Your task to perform on an android device: remove spam from my inbox in the gmail app Image 0: 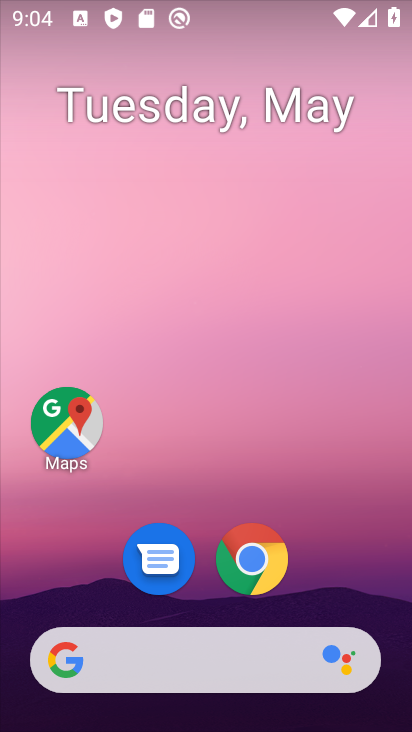
Step 0: drag from (288, 639) to (291, 601)
Your task to perform on an android device: remove spam from my inbox in the gmail app Image 1: 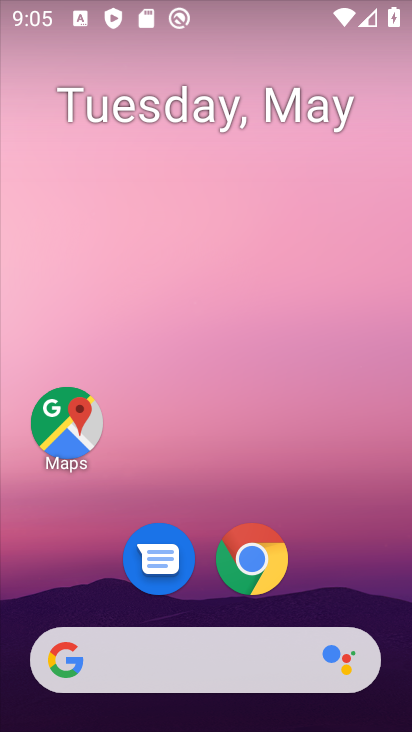
Step 1: drag from (208, 677) to (225, 461)
Your task to perform on an android device: remove spam from my inbox in the gmail app Image 2: 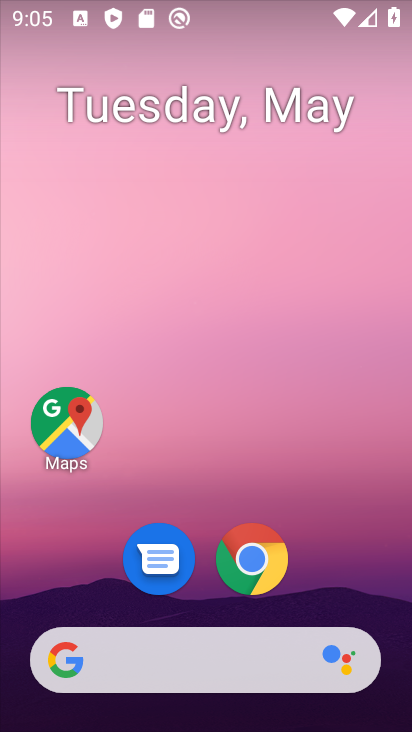
Step 2: drag from (158, 651) to (226, 375)
Your task to perform on an android device: remove spam from my inbox in the gmail app Image 3: 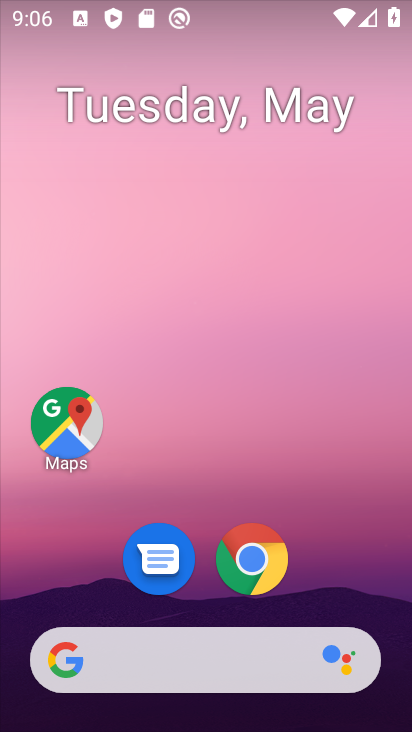
Step 3: drag from (172, 622) to (190, 247)
Your task to perform on an android device: remove spam from my inbox in the gmail app Image 4: 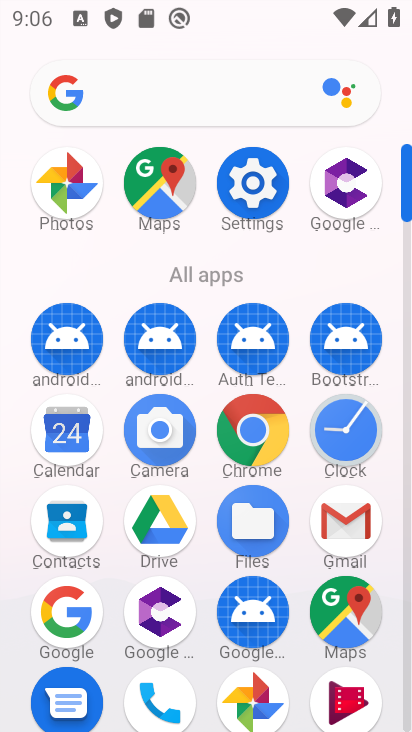
Step 4: click (338, 540)
Your task to perform on an android device: remove spam from my inbox in the gmail app Image 5: 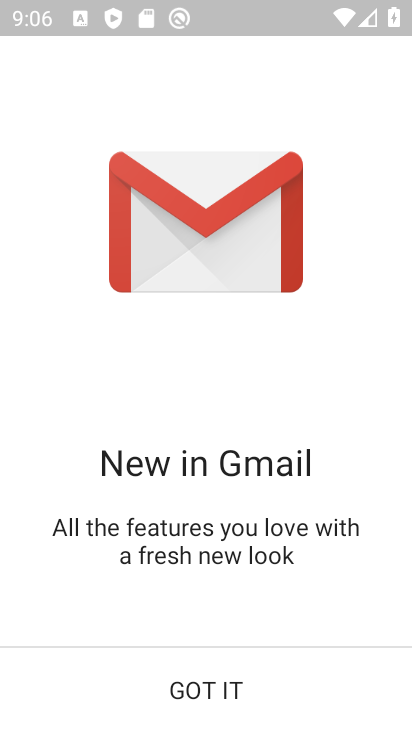
Step 5: click (234, 662)
Your task to perform on an android device: remove spam from my inbox in the gmail app Image 6: 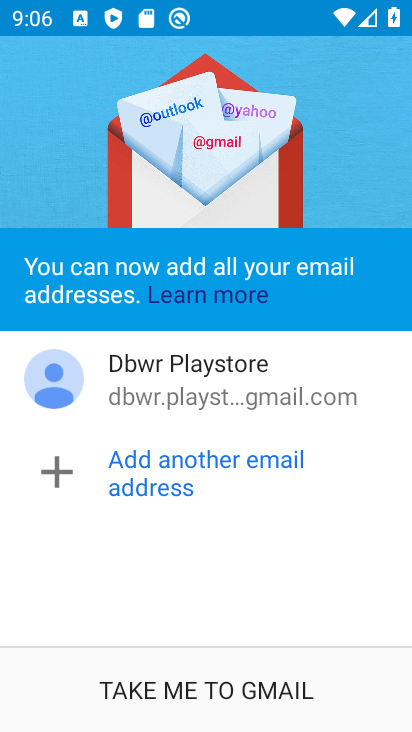
Step 6: click (259, 689)
Your task to perform on an android device: remove spam from my inbox in the gmail app Image 7: 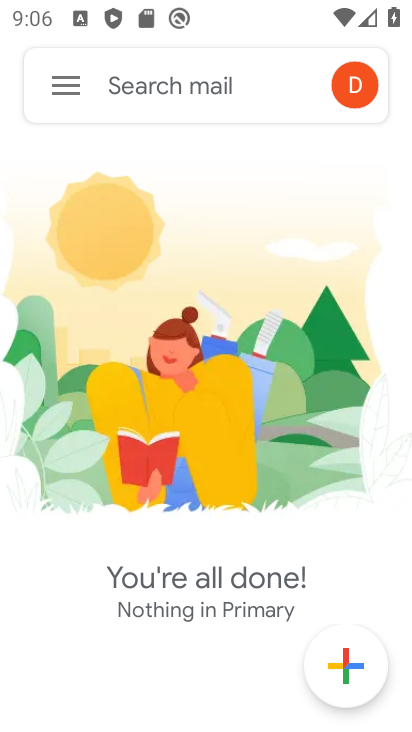
Step 7: click (42, 74)
Your task to perform on an android device: remove spam from my inbox in the gmail app Image 8: 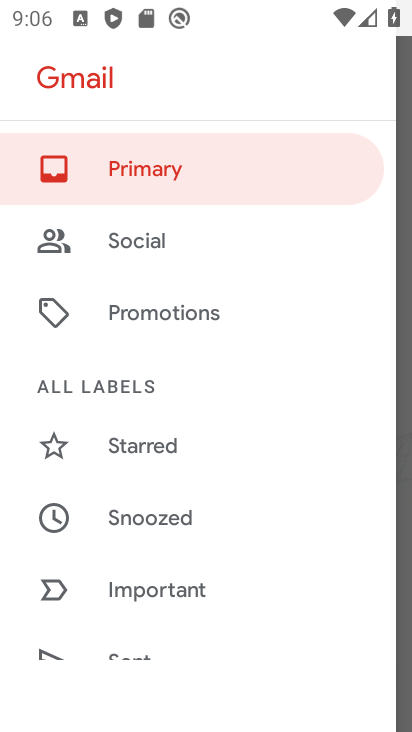
Step 8: drag from (156, 552) to (129, 221)
Your task to perform on an android device: remove spam from my inbox in the gmail app Image 9: 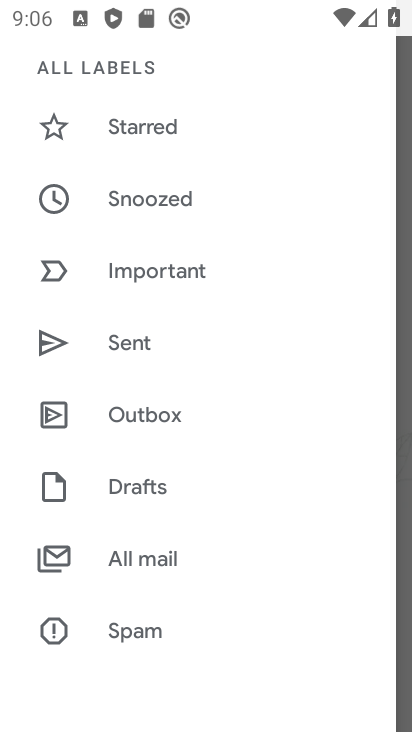
Step 9: drag from (109, 275) to (129, 606)
Your task to perform on an android device: remove spam from my inbox in the gmail app Image 10: 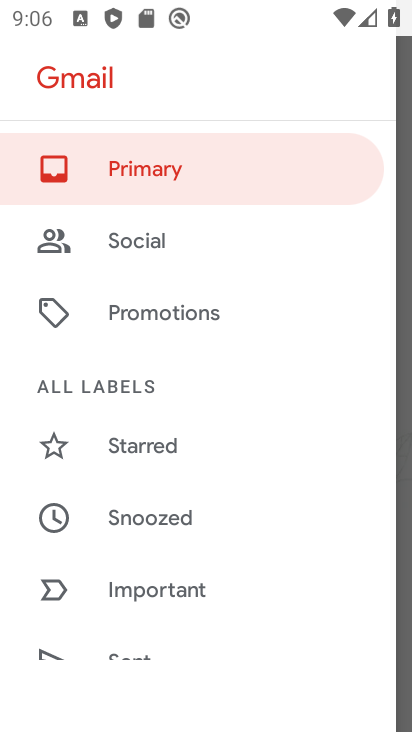
Step 10: drag from (144, 503) to (112, 130)
Your task to perform on an android device: remove spam from my inbox in the gmail app Image 11: 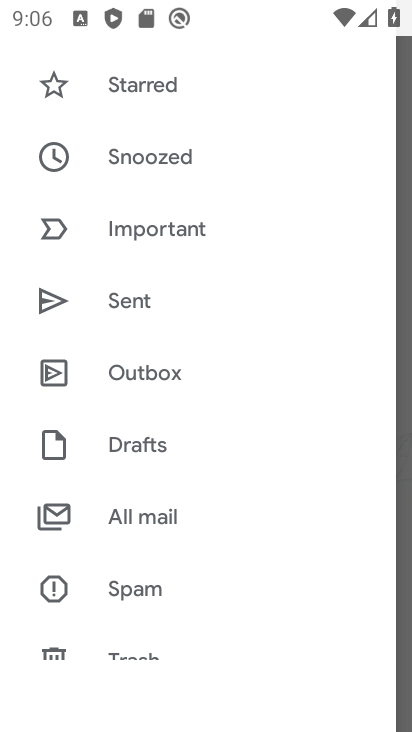
Step 11: click (140, 536)
Your task to perform on an android device: remove spam from my inbox in the gmail app Image 12: 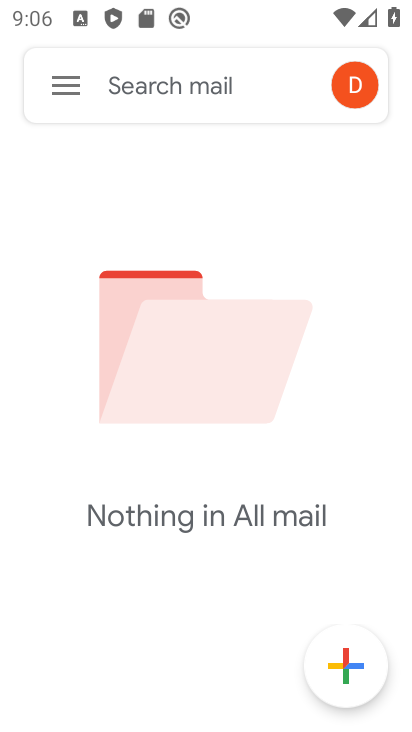
Step 12: task complete